Your task to perform on an android device: open chrome and create a bookmark for the current page Image 0: 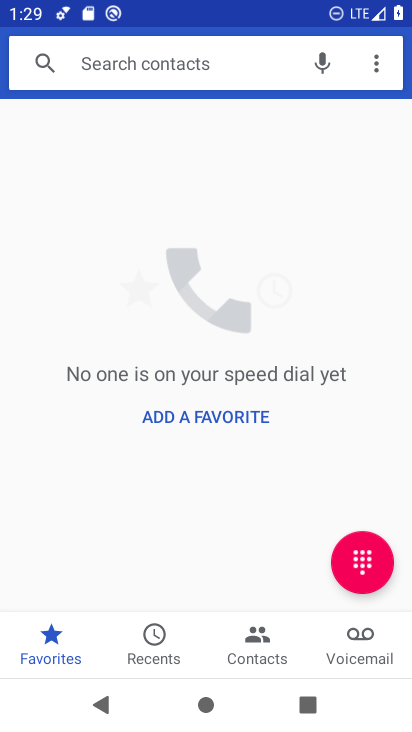
Step 0: press home button
Your task to perform on an android device: open chrome and create a bookmark for the current page Image 1: 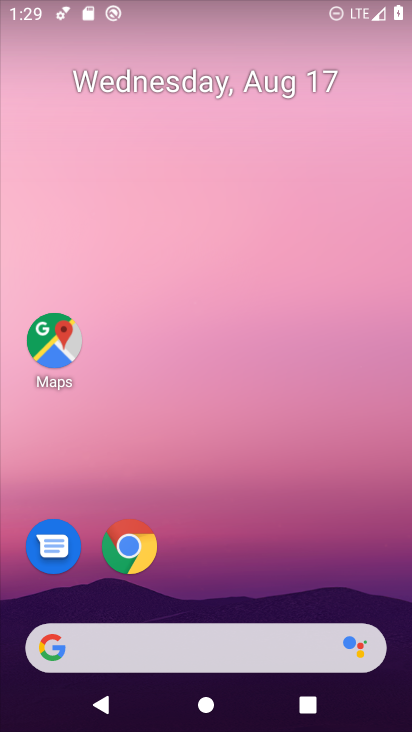
Step 1: click (124, 542)
Your task to perform on an android device: open chrome and create a bookmark for the current page Image 2: 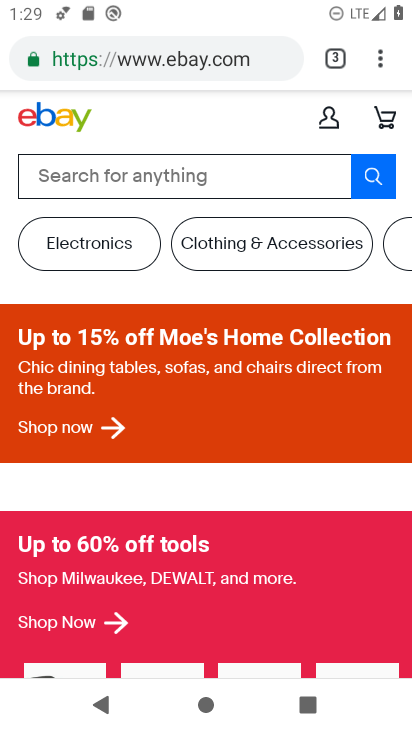
Step 2: click (379, 64)
Your task to perform on an android device: open chrome and create a bookmark for the current page Image 3: 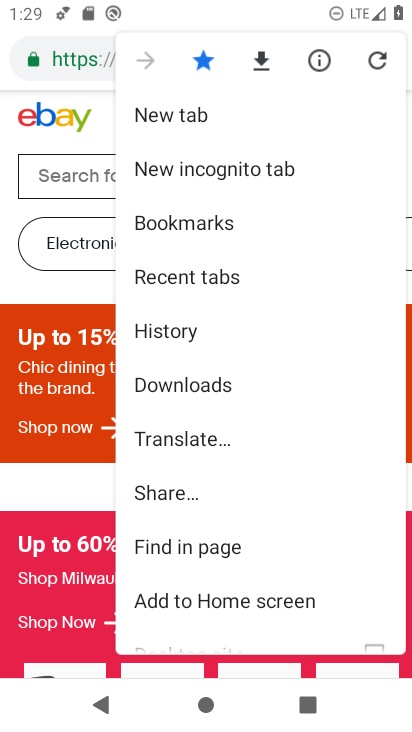
Step 3: task complete